Your task to perform on an android device: check storage Image 0: 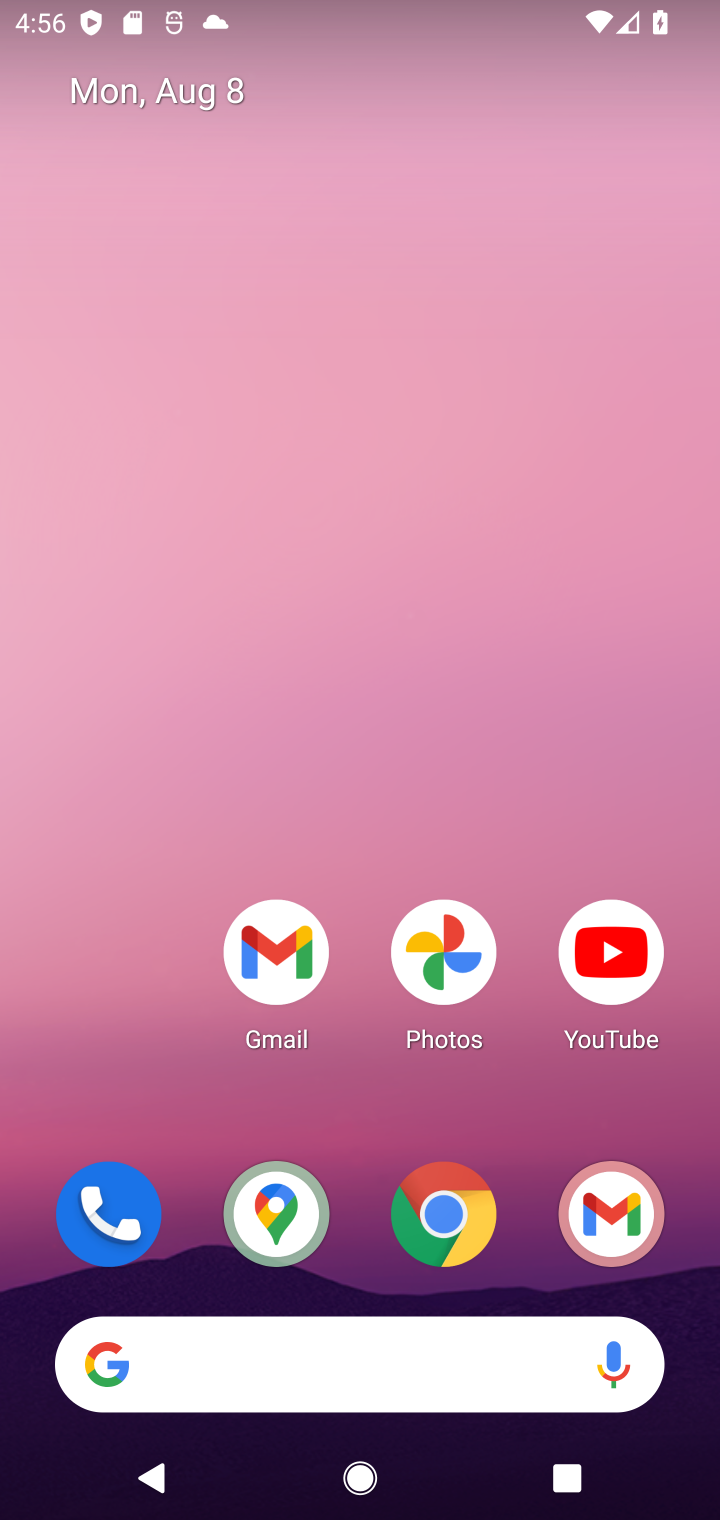
Step 0: drag from (383, 1300) to (361, 150)
Your task to perform on an android device: check storage Image 1: 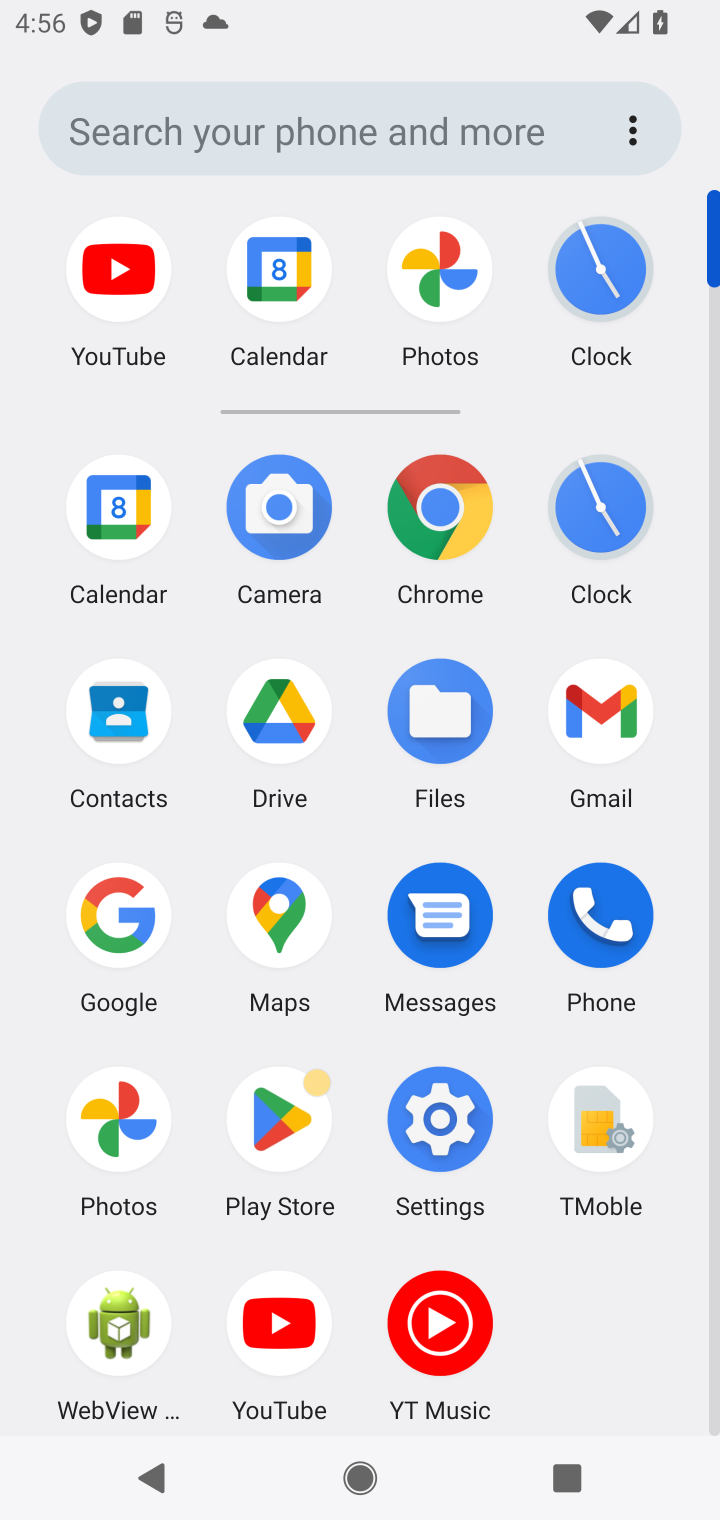
Step 1: click (445, 1118)
Your task to perform on an android device: check storage Image 2: 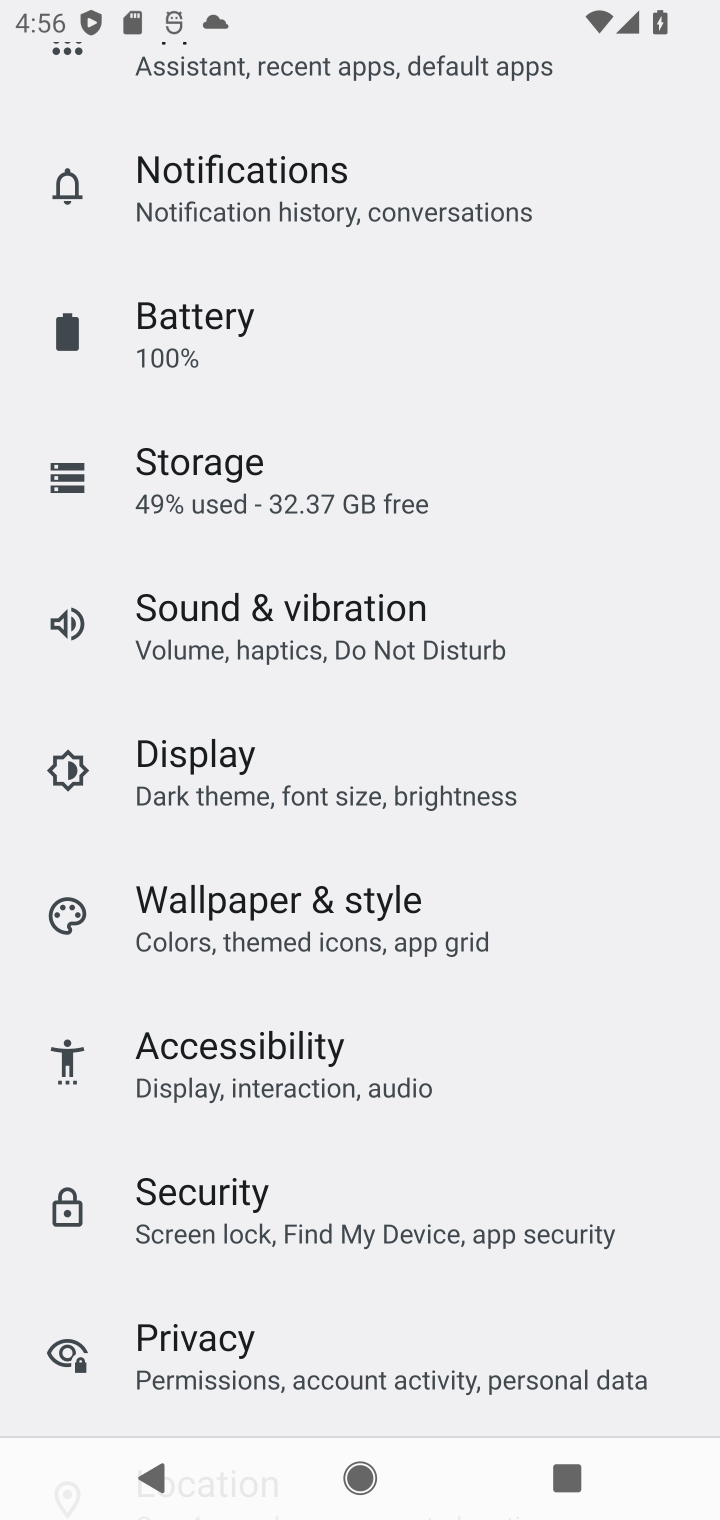
Step 2: click (191, 468)
Your task to perform on an android device: check storage Image 3: 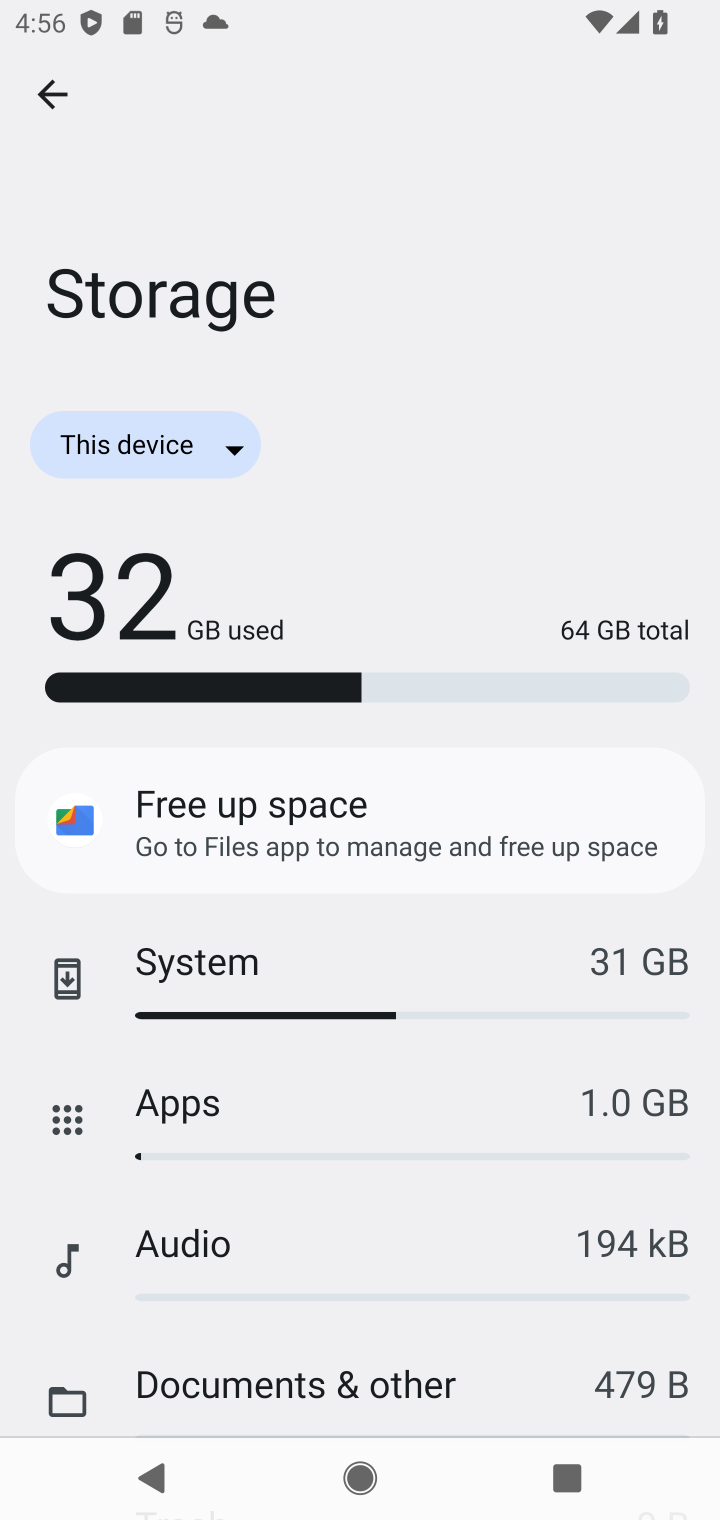
Step 3: task complete